Your task to perform on an android device: check data usage Image 0: 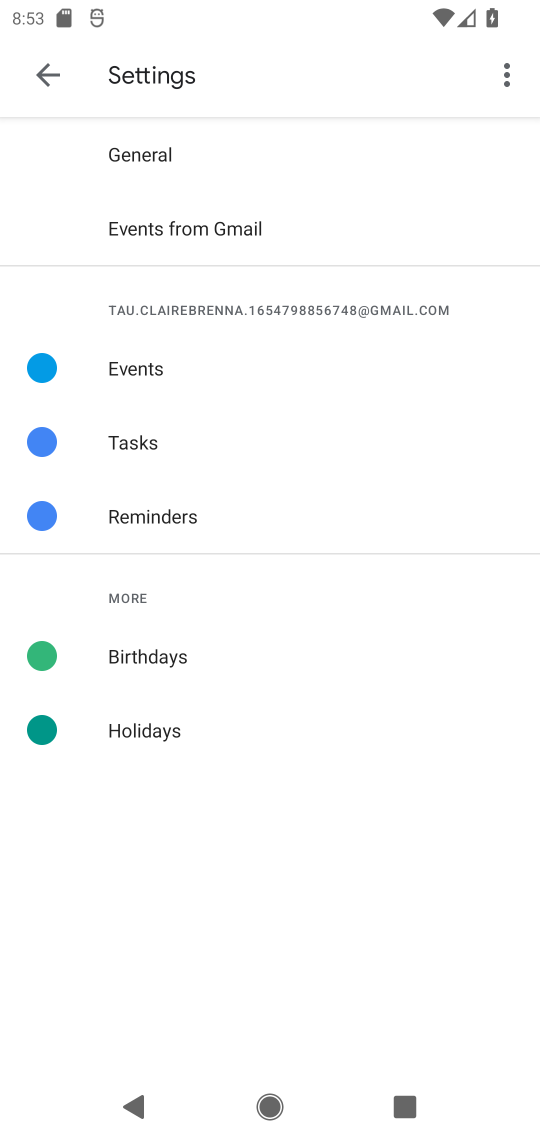
Step 0: press home button
Your task to perform on an android device: check data usage Image 1: 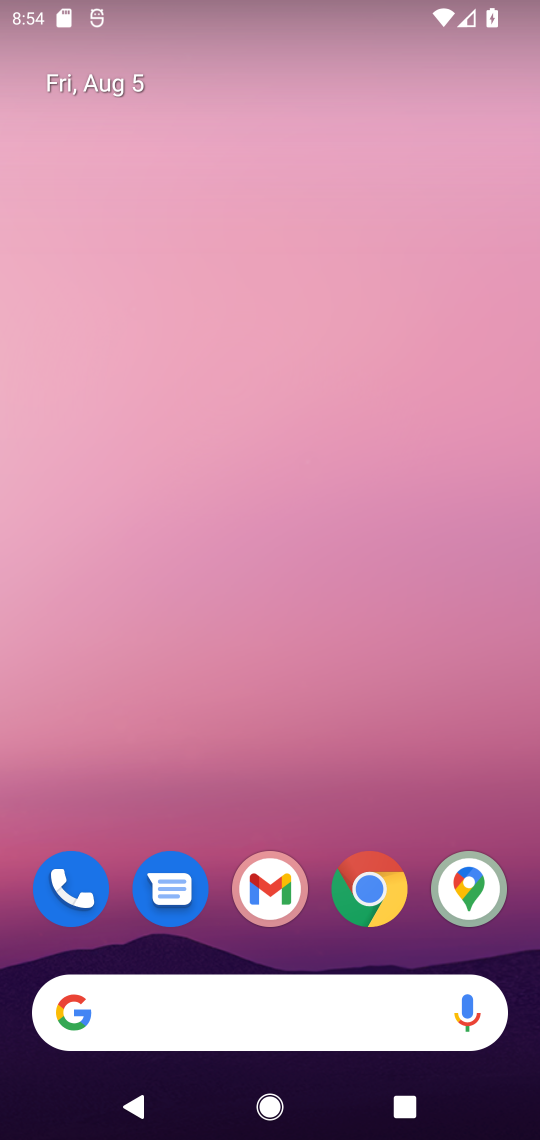
Step 1: drag from (271, 874) to (313, 256)
Your task to perform on an android device: check data usage Image 2: 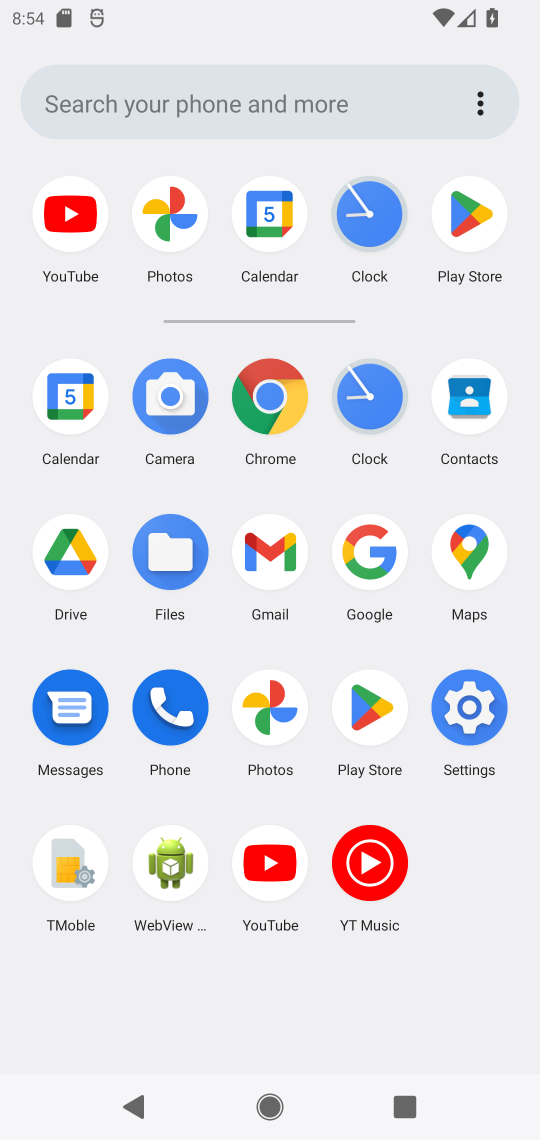
Step 2: click (486, 703)
Your task to perform on an android device: check data usage Image 3: 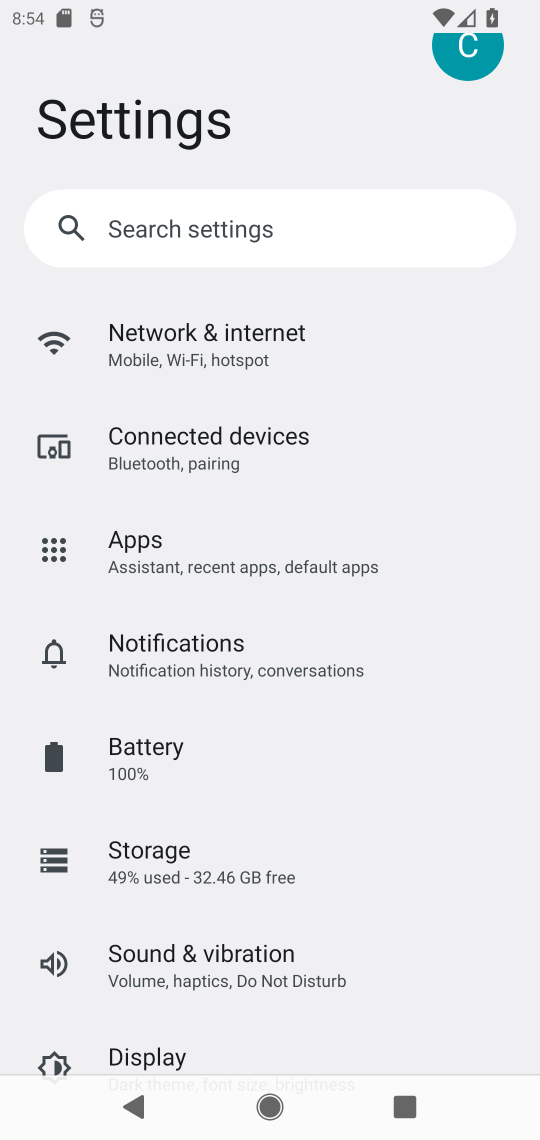
Step 3: click (243, 348)
Your task to perform on an android device: check data usage Image 4: 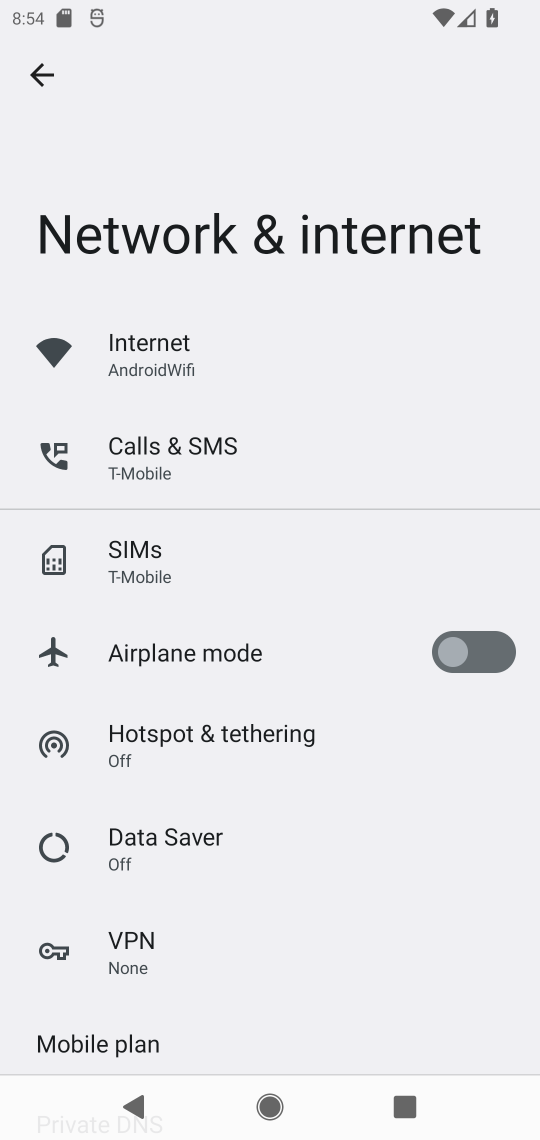
Step 4: click (162, 545)
Your task to perform on an android device: check data usage Image 5: 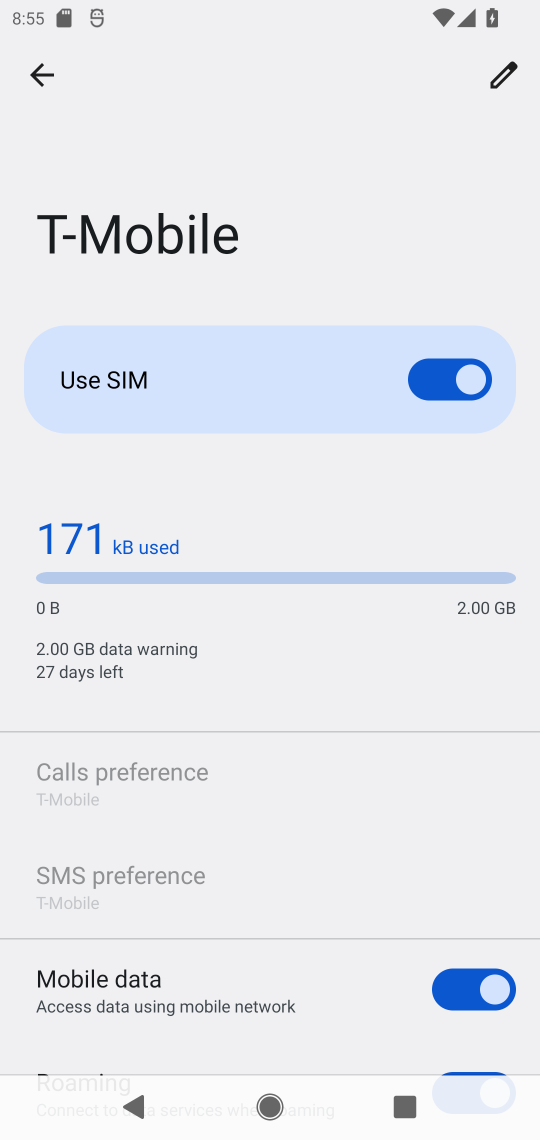
Step 5: task complete